Your task to perform on an android device: change the upload size in google photos Image 0: 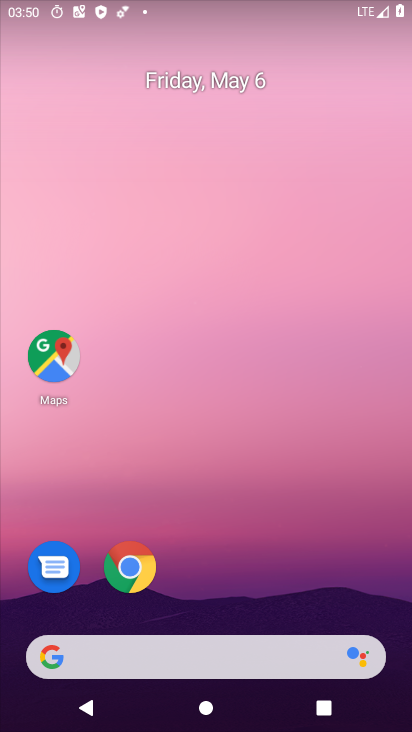
Step 0: drag from (188, 611) to (202, 250)
Your task to perform on an android device: change the upload size in google photos Image 1: 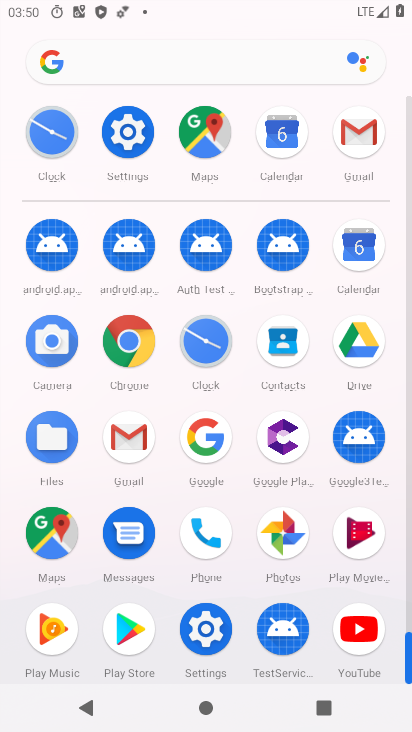
Step 1: click (280, 534)
Your task to perform on an android device: change the upload size in google photos Image 2: 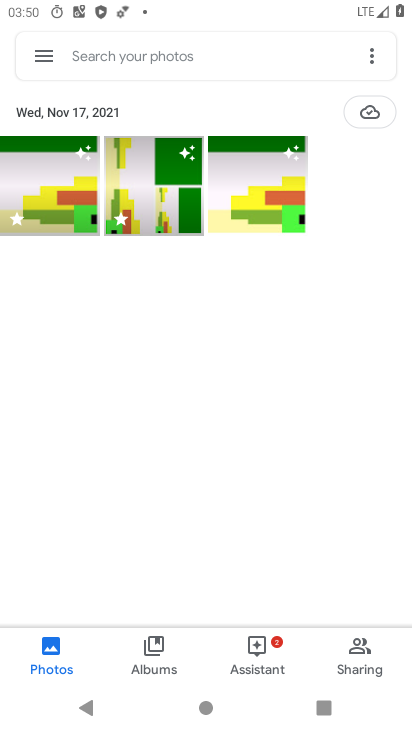
Step 2: click (37, 62)
Your task to perform on an android device: change the upload size in google photos Image 3: 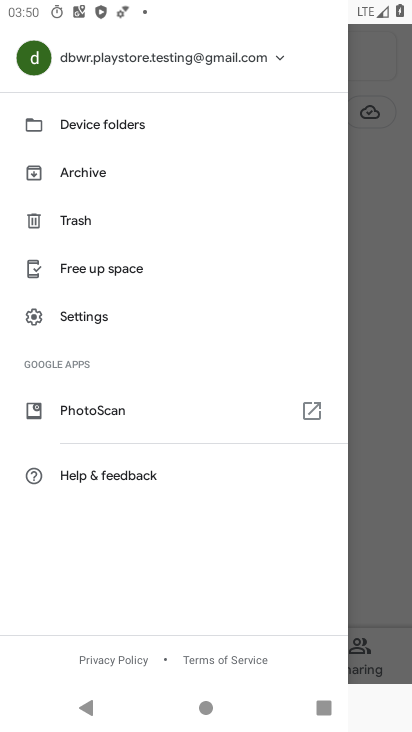
Step 3: click (107, 319)
Your task to perform on an android device: change the upload size in google photos Image 4: 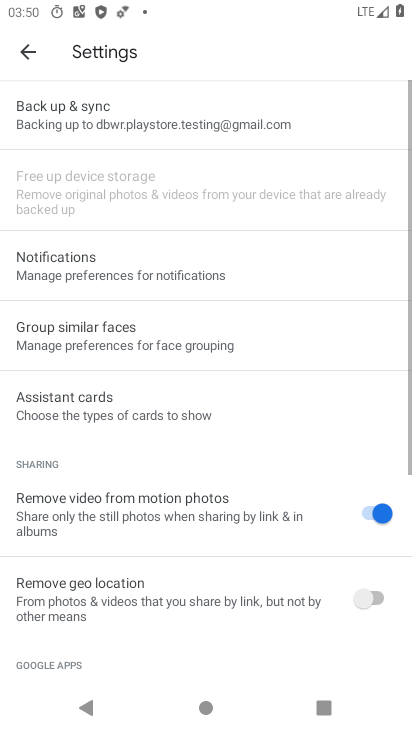
Step 4: click (132, 116)
Your task to perform on an android device: change the upload size in google photos Image 5: 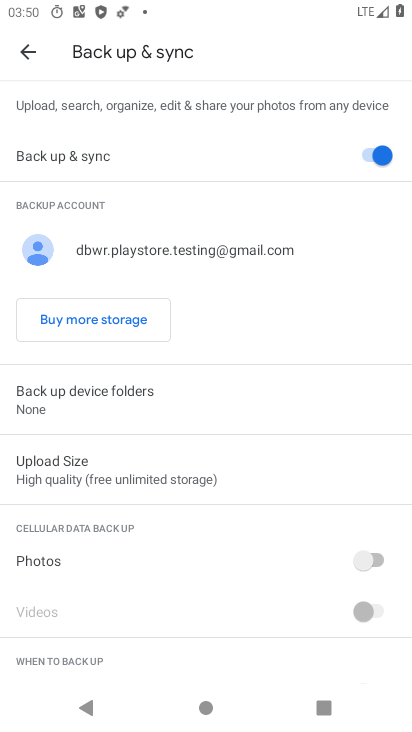
Step 5: click (128, 460)
Your task to perform on an android device: change the upload size in google photos Image 6: 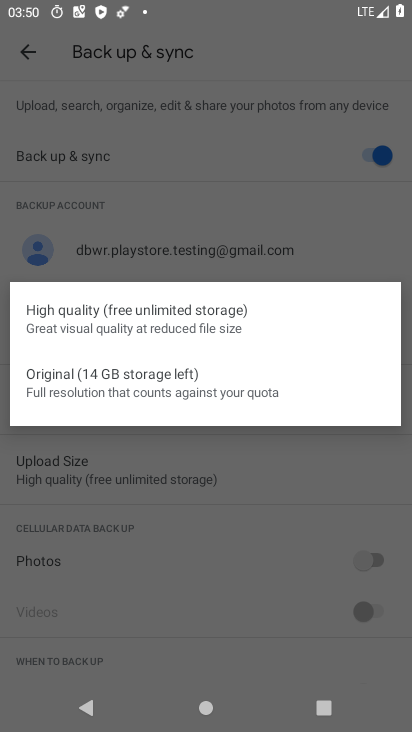
Step 6: click (146, 399)
Your task to perform on an android device: change the upload size in google photos Image 7: 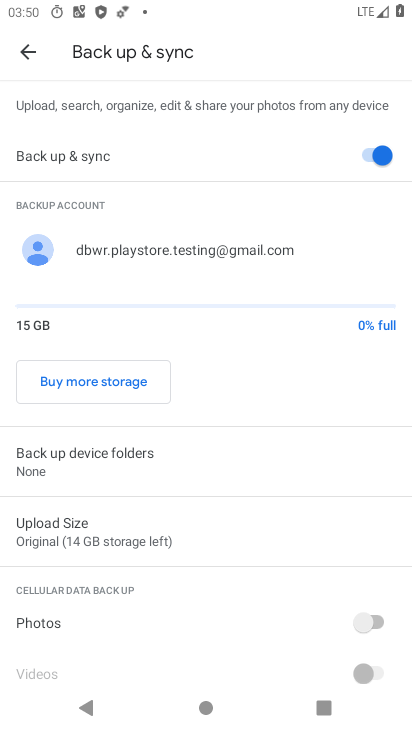
Step 7: task complete